Your task to perform on an android device: Open ESPN.com Image 0: 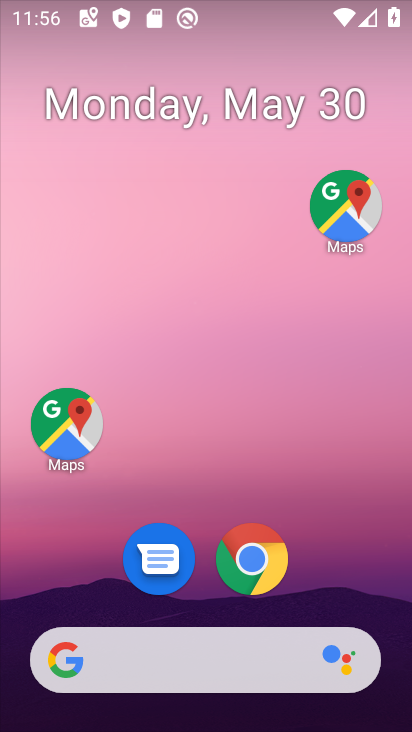
Step 0: click (252, 552)
Your task to perform on an android device: Open ESPN.com Image 1: 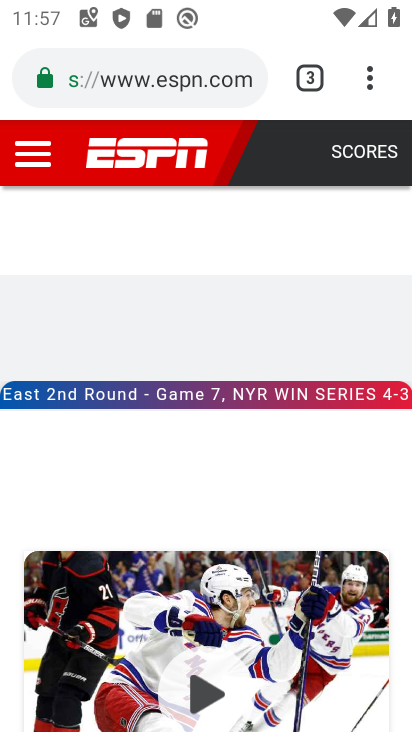
Step 1: task complete